Your task to perform on an android device: read, delete, or share a saved page in the chrome app Image 0: 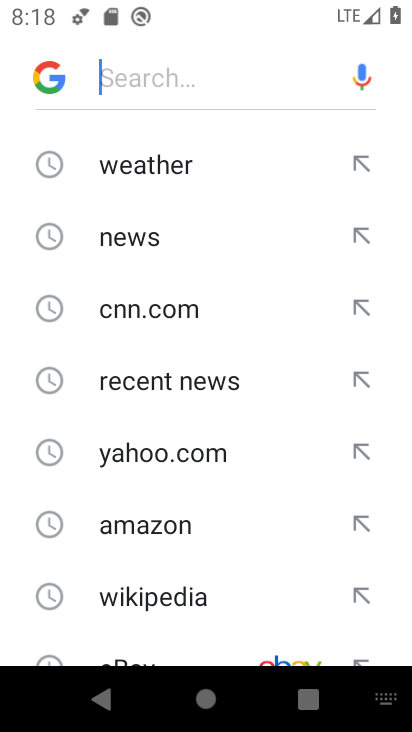
Step 0: press back button
Your task to perform on an android device: read, delete, or share a saved page in the chrome app Image 1: 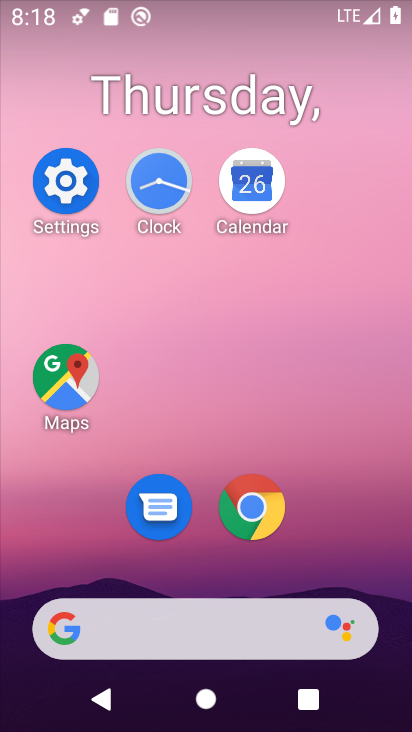
Step 1: click (264, 506)
Your task to perform on an android device: read, delete, or share a saved page in the chrome app Image 2: 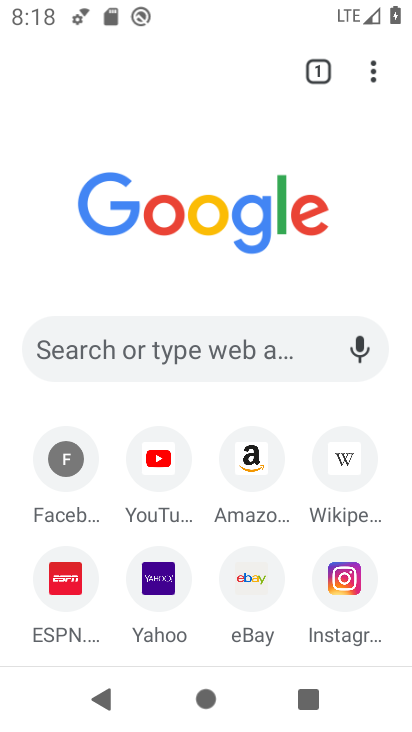
Step 2: click (378, 78)
Your task to perform on an android device: read, delete, or share a saved page in the chrome app Image 3: 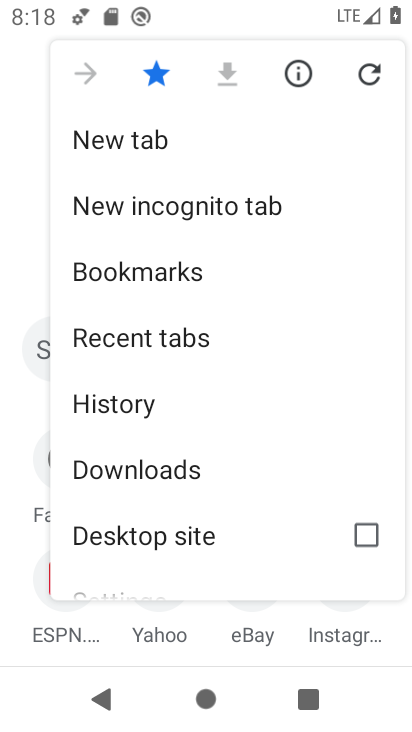
Step 3: click (194, 473)
Your task to perform on an android device: read, delete, or share a saved page in the chrome app Image 4: 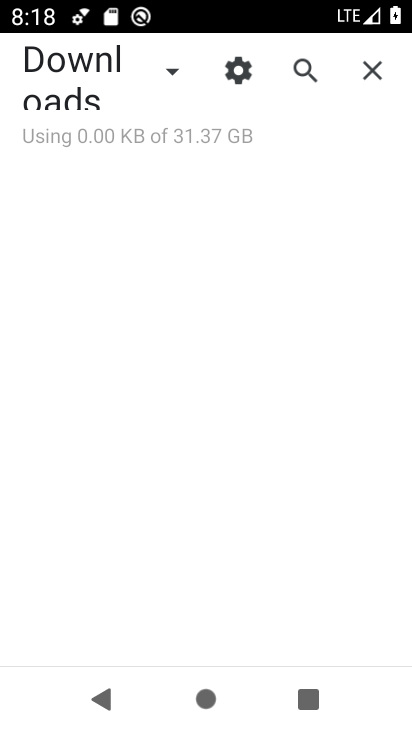
Step 4: task complete